Your task to perform on an android device: turn off location Image 0: 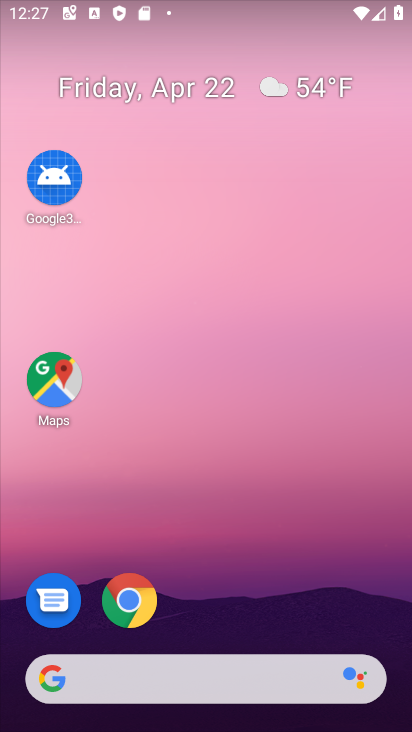
Step 0: drag from (260, 499) to (265, 5)
Your task to perform on an android device: turn off location Image 1: 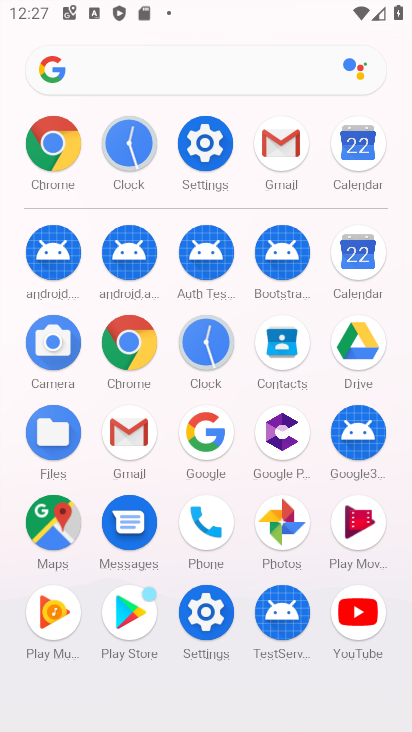
Step 1: click (205, 156)
Your task to perform on an android device: turn off location Image 2: 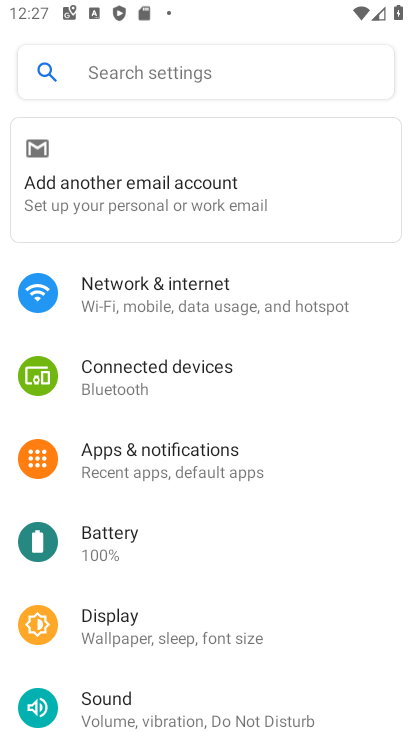
Step 2: drag from (199, 584) to (195, 189)
Your task to perform on an android device: turn off location Image 3: 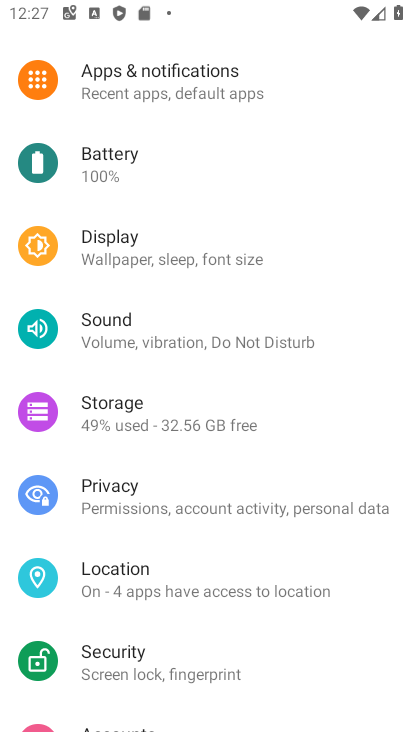
Step 3: click (132, 580)
Your task to perform on an android device: turn off location Image 4: 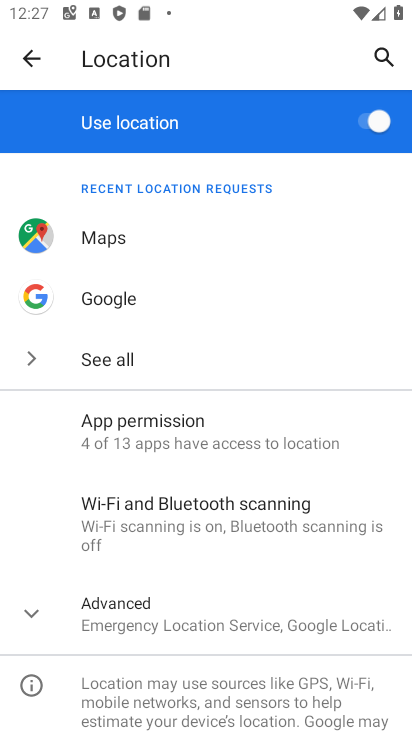
Step 4: click (375, 113)
Your task to perform on an android device: turn off location Image 5: 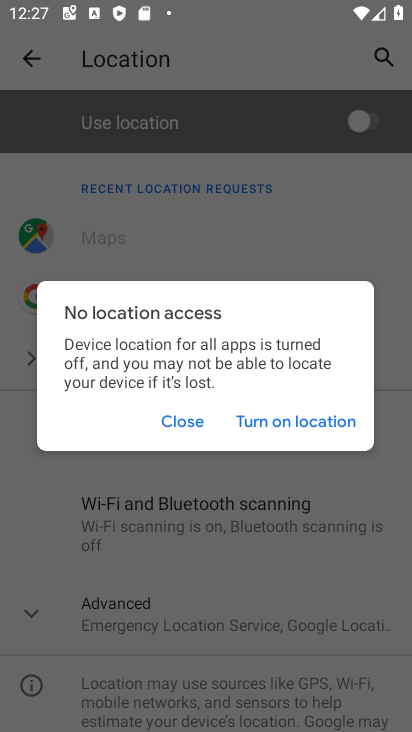
Step 5: click (192, 417)
Your task to perform on an android device: turn off location Image 6: 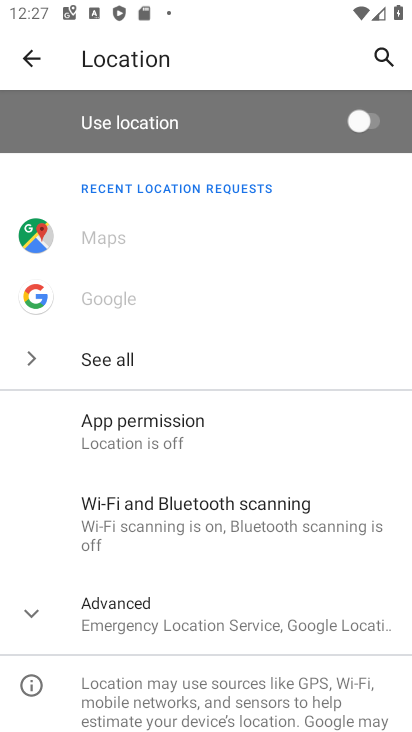
Step 6: task complete